Your task to perform on an android device: set the stopwatch Image 0: 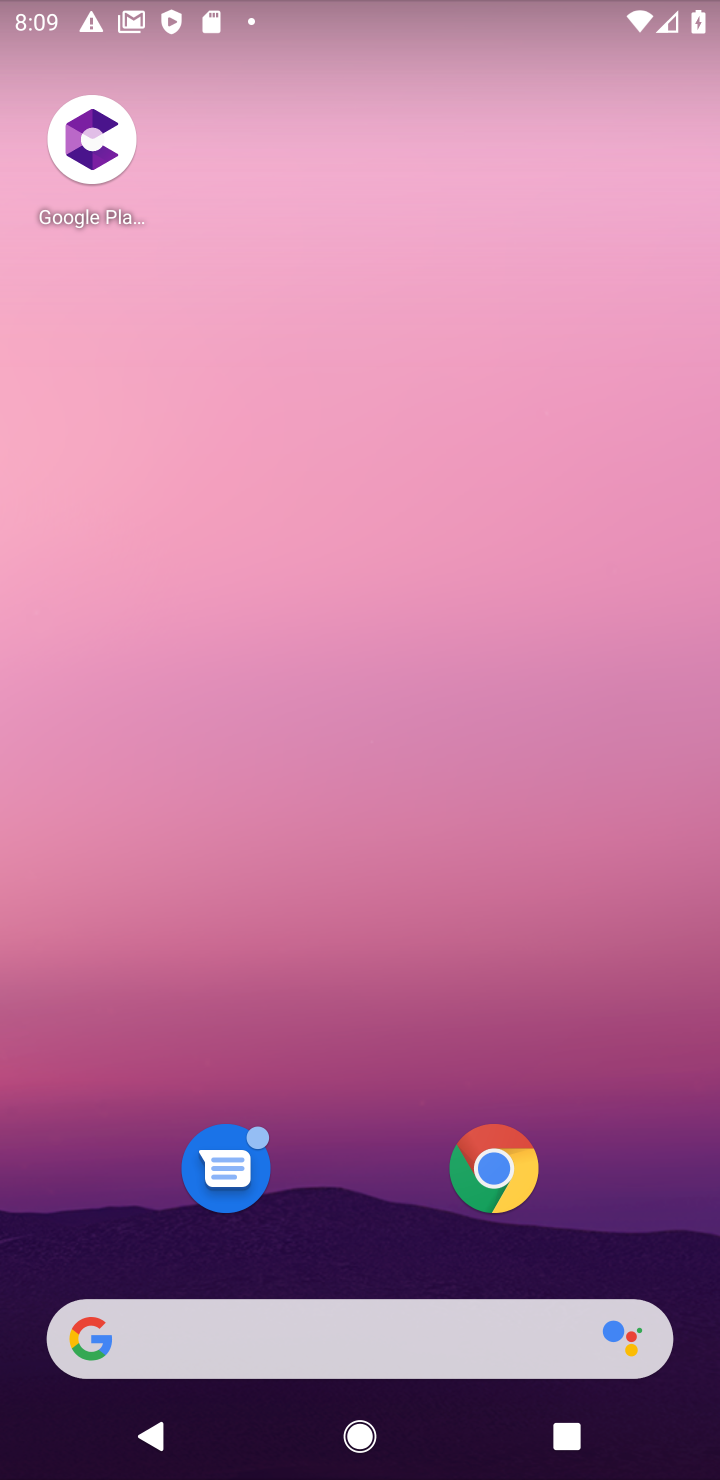
Step 0: drag from (386, 1215) to (502, 106)
Your task to perform on an android device: set the stopwatch Image 1: 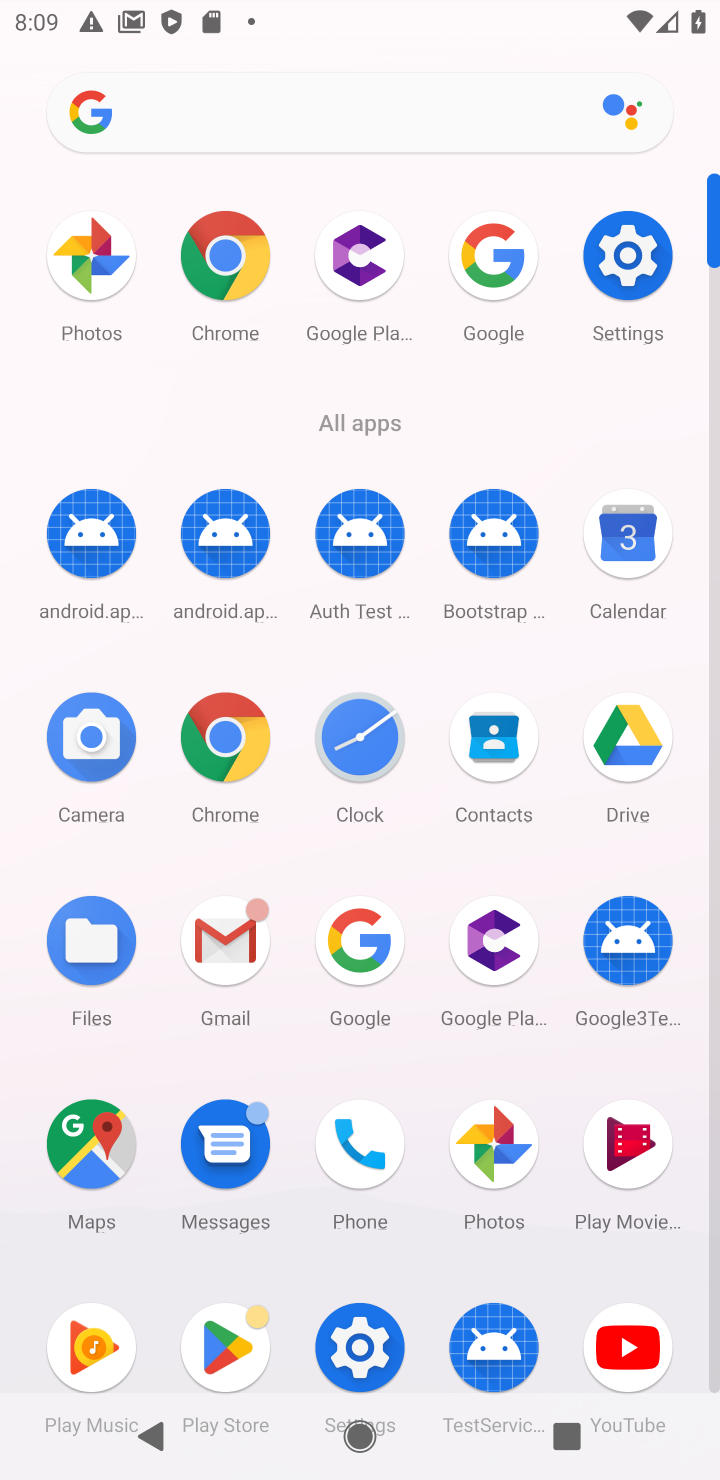
Step 1: click (334, 749)
Your task to perform on an android device: set the stopwatch Image 2: 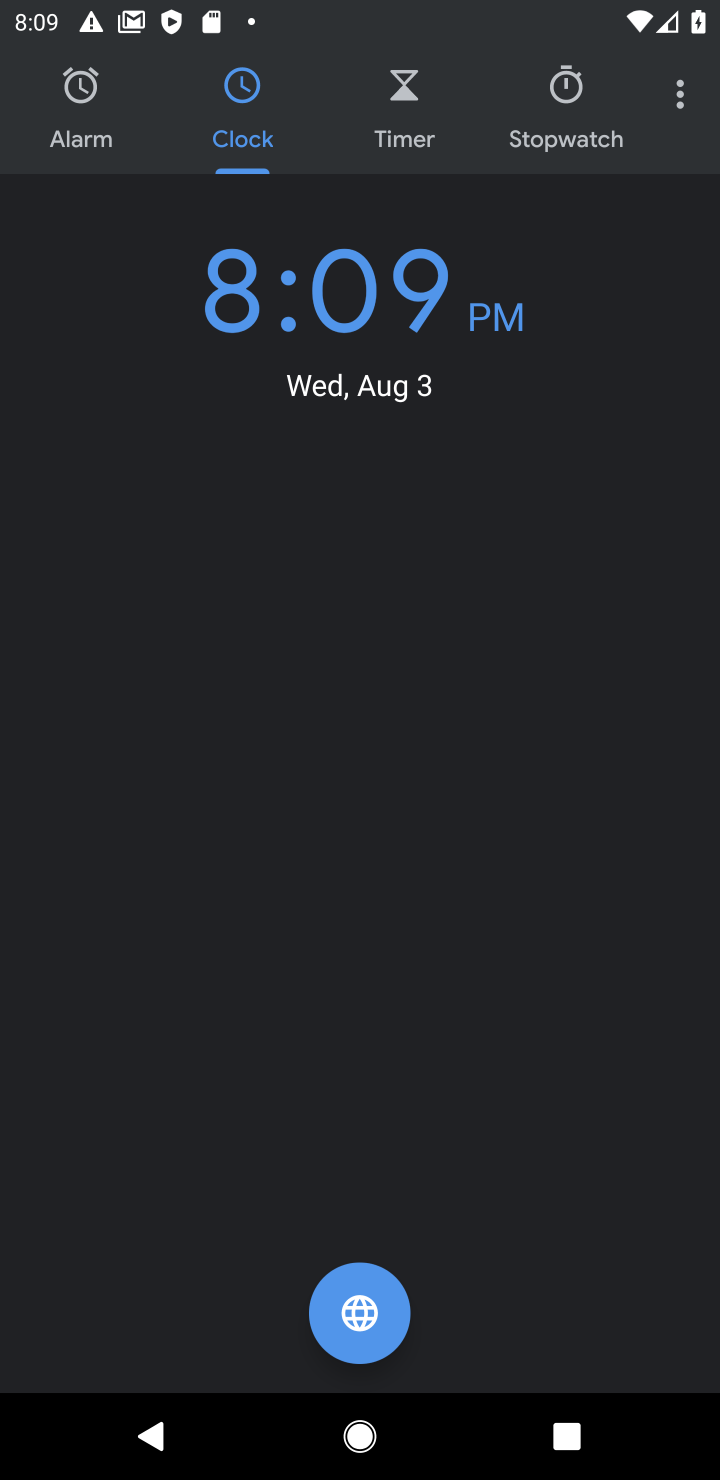
Step 2: click (540, 108)
Your task to perform on an android device: set the stopwatch Image 3: 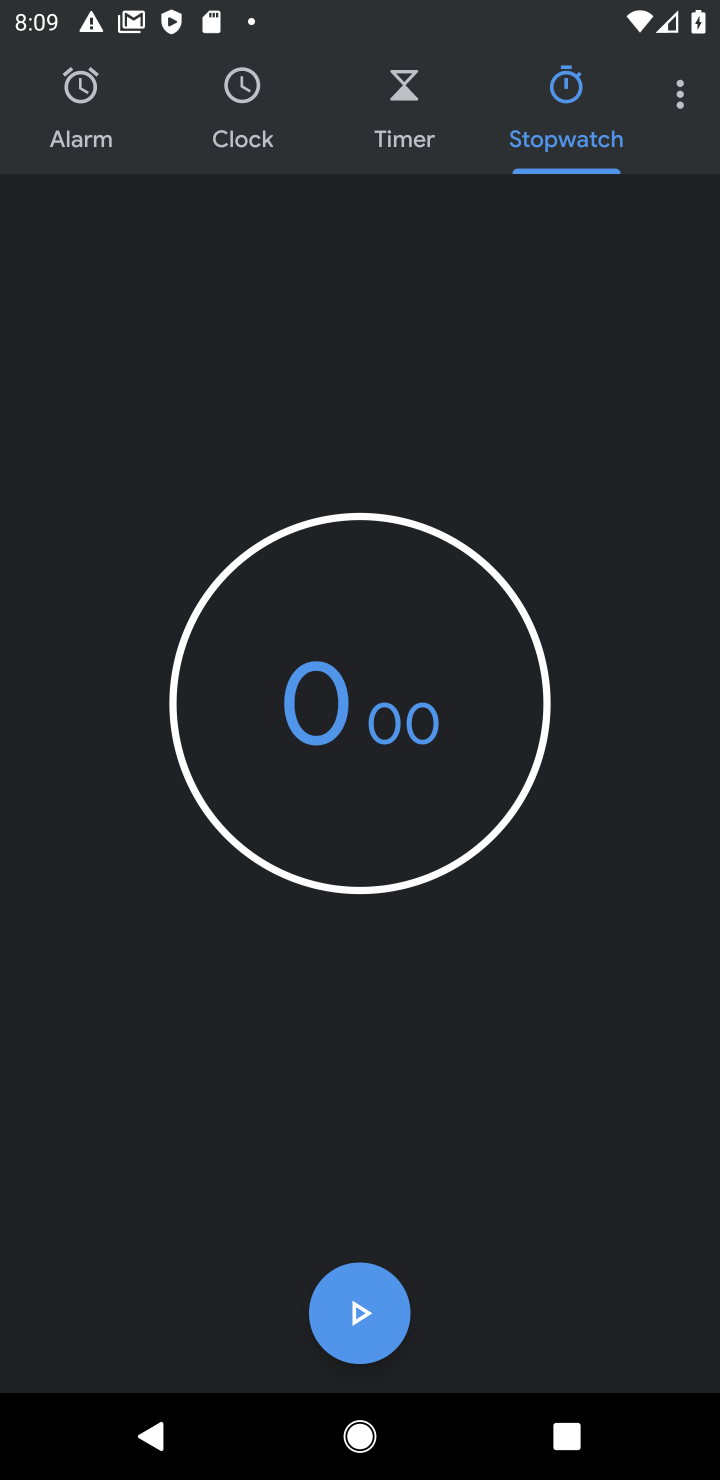
Step 3: task complete